Your task to perform on an android device: Open calendar and show me the second week of next month Image 0: 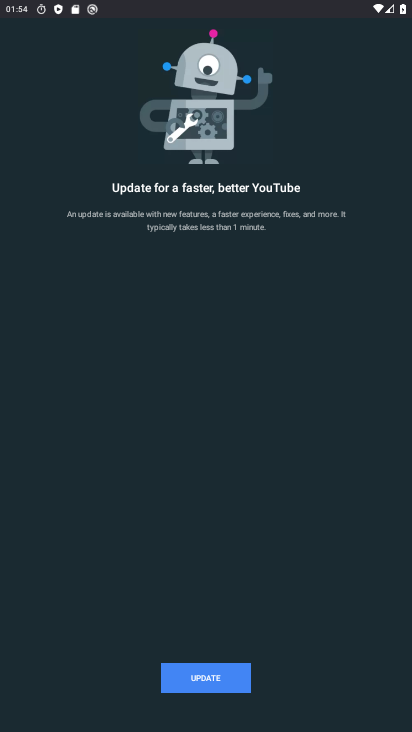
Step 0: press home button
Your task to perform on an android device: Open calendar and show me the second week of next month Image 1: 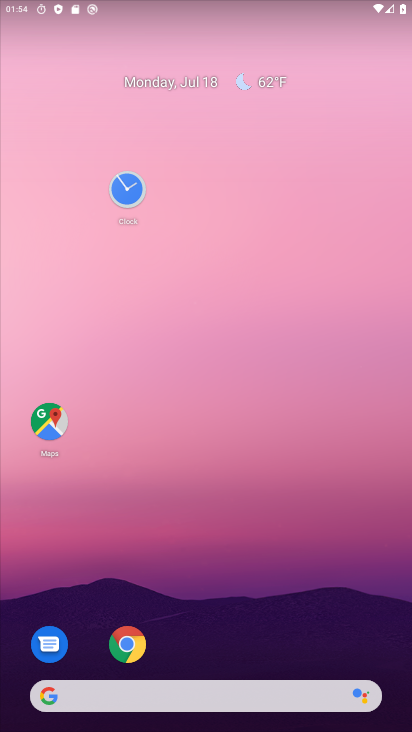
Step 1: drag from (223, 645) to (231, 85)
Your task to perform on an android device: Open calendar and show me the second week of next month Image 2: 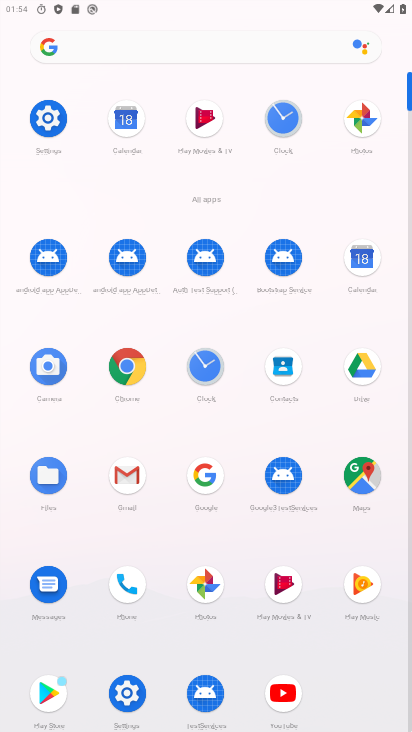
Step 2: drag from (365, 263) to (49, 204)
Your task to perform on an android device: Open calendar and show me the second week of next month Image 3: 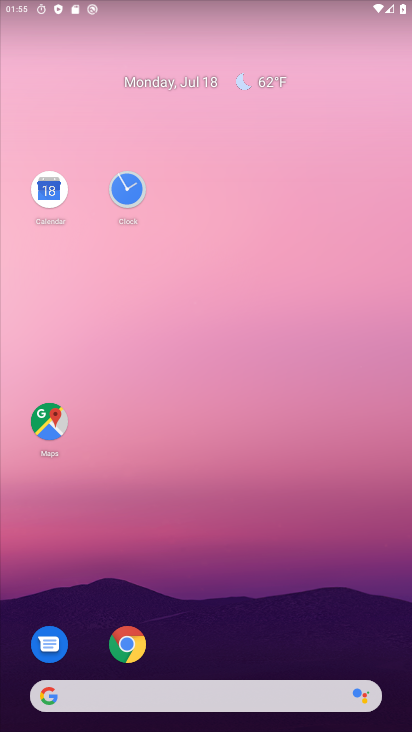
Step 3: click (52, 183)
Your task to perform on an android device: Open calendar and show me the second week of next month Image 4: 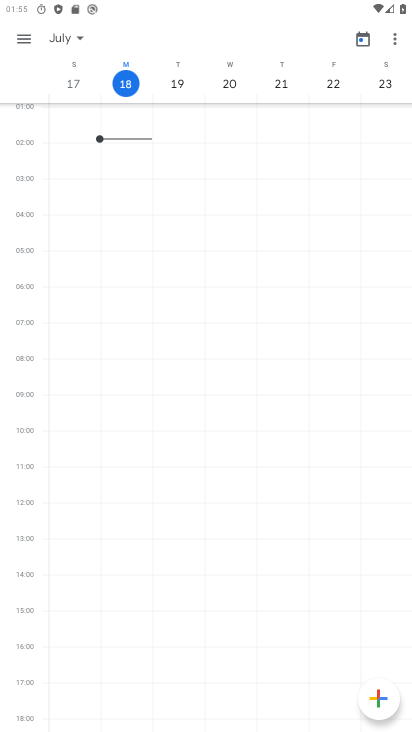
Step 4: click (74, 40)
Your task to perform on an android device: Open calendar and show me the second week of next month Image 5: 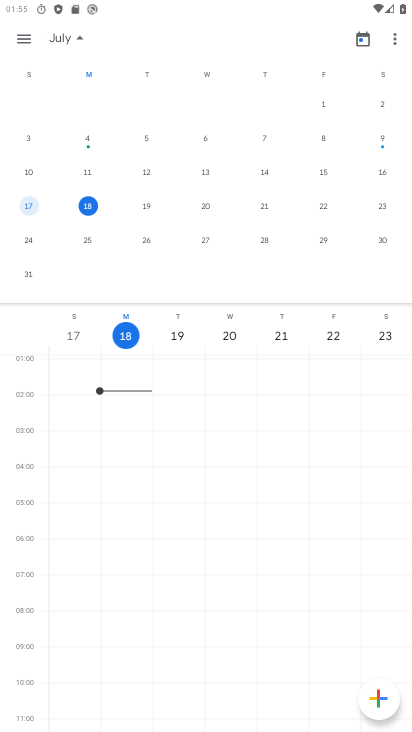
Step 5: drag from (377, 190) to (8, 177)
Your task to perform on an android device: Open calendar and show me the second week of next month Image 6: 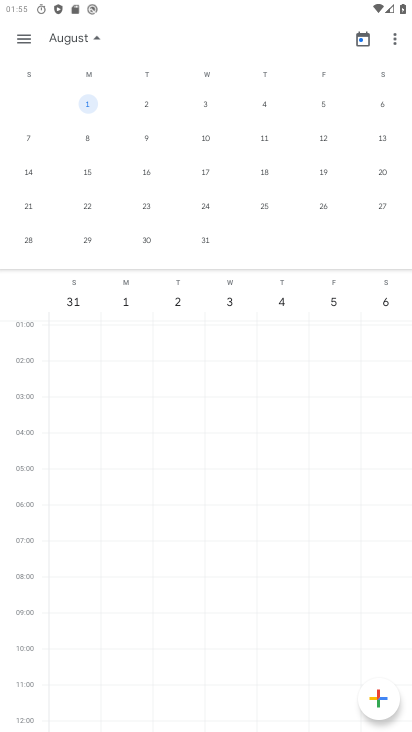
Step 6: click (21, 37)
Your task to perform on an android device: Open calendar and show me the second week of next month Image 7: 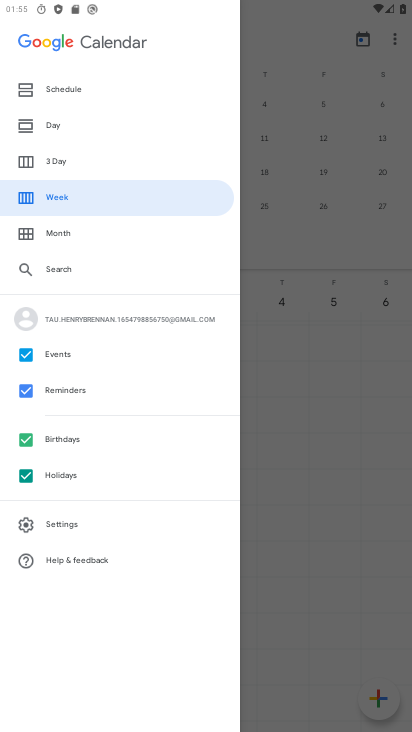
Step 7: click (99, 199)
Your task to perform on an android device: Open calendar and show me the second week of next month Image 8: 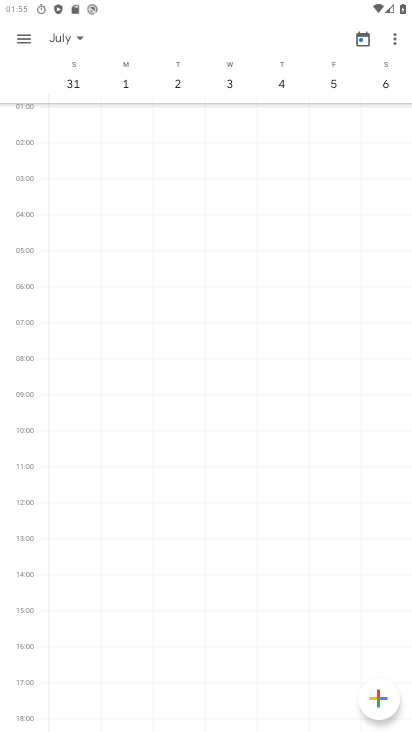
Step 8: task complete